Your task to perform on an android device: toggle wifi Image 0: 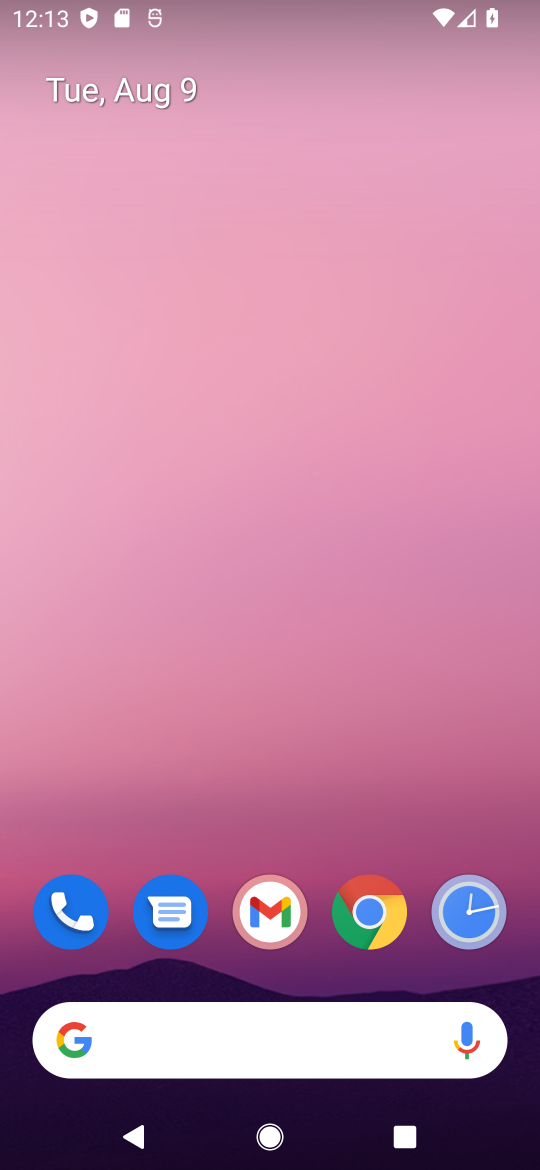
Step 0: drag from (317, 1020) to (282, 240)
Your task to perform on an android device: toggle wifi Image 1: 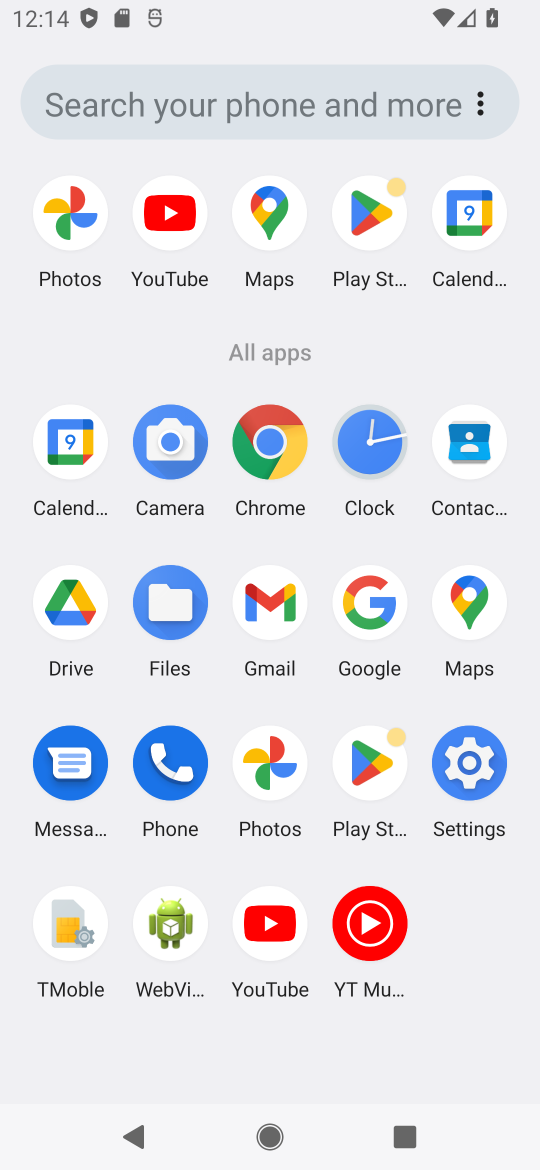
Step 1: click (471, 760)
Your task to perform on an android device: toggle wifi Image 2: 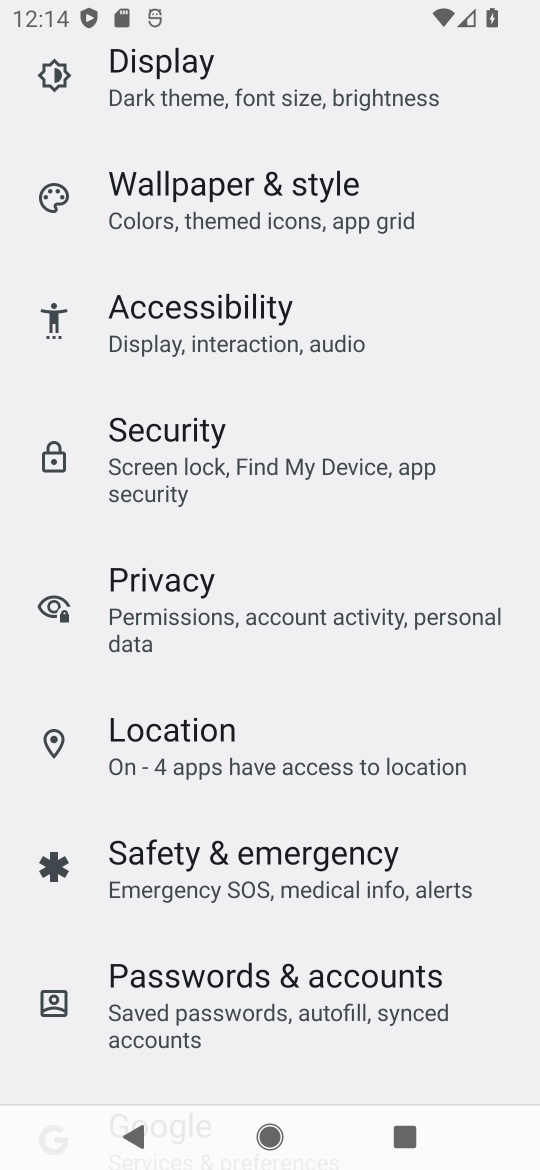
Step 2: drag from (190, 77) to (226, 872)
Your task to perform on an android device: toggle wifi Image 3: 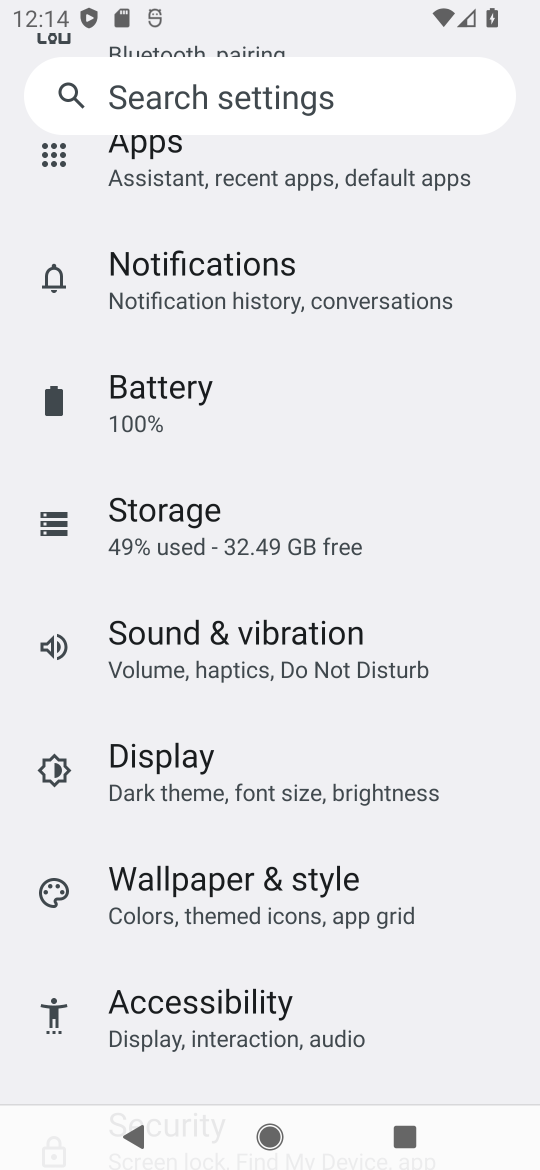
Step 3: drag from (199, 166) to (257, 1022)
Your task to perform on an android device: toggle wifi Image 4: 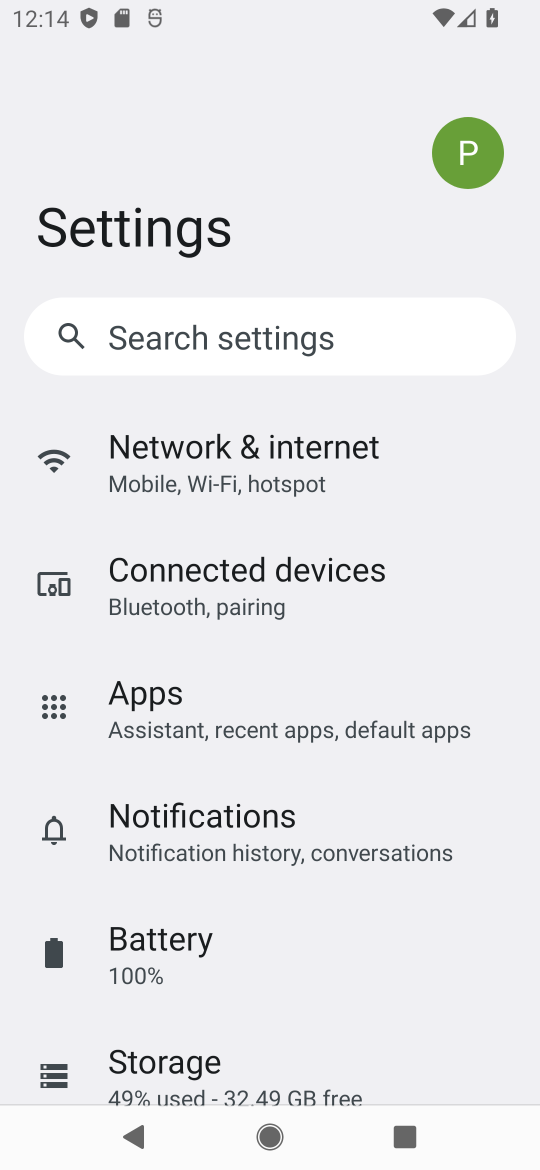
Step 4: click (171, 461)
Your task to perform on an android device: toggle wifi Image 5: 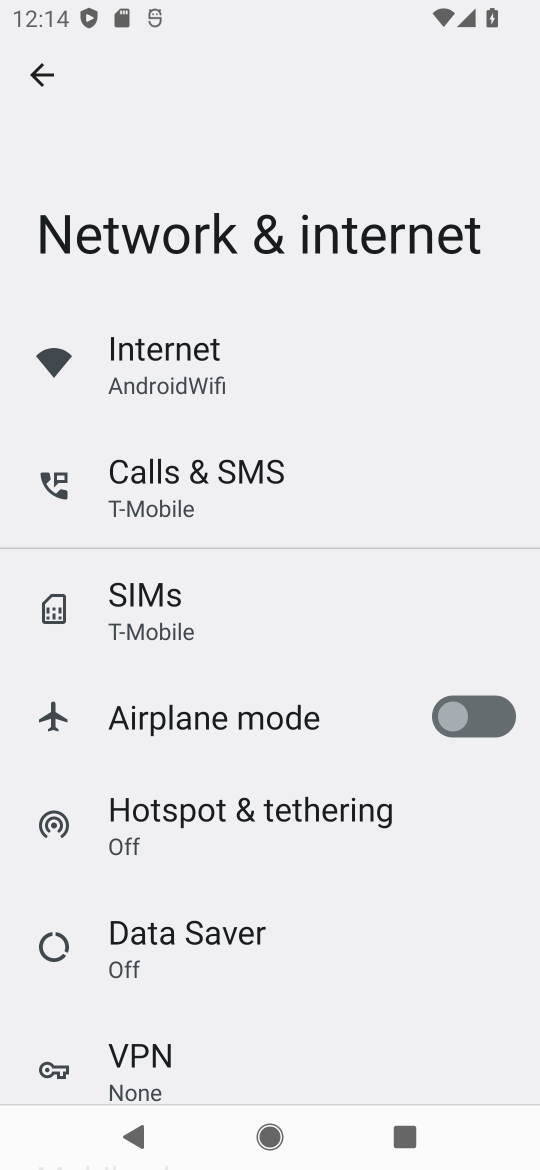
Step 5: click (128, 367)
Your task to perform on an android device: toggle wifi Image 6: 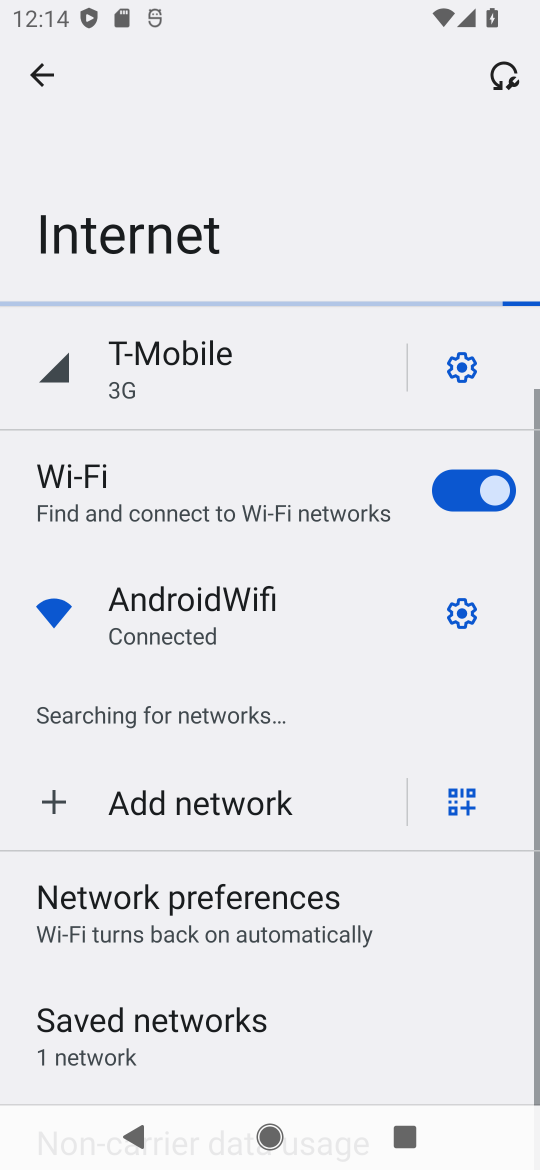
Step 6: click (464, 492)
Your task to perform on an android device: toggle wifi Image 7: 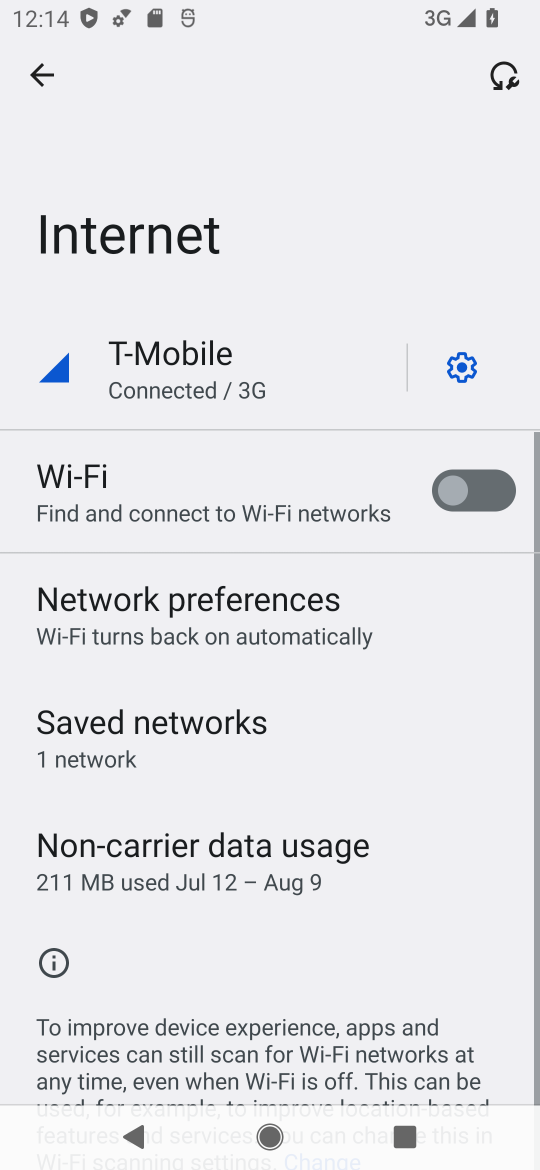
Step 7: task complete